Your task to perform on an android device: check storage Image 0: 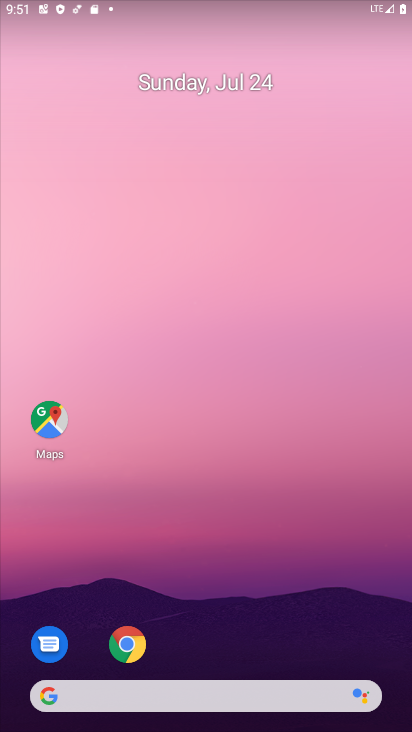
Step 0: drag from (85, 332) to (151, 200)
Your task to perform on an android device: check storage Image 1: 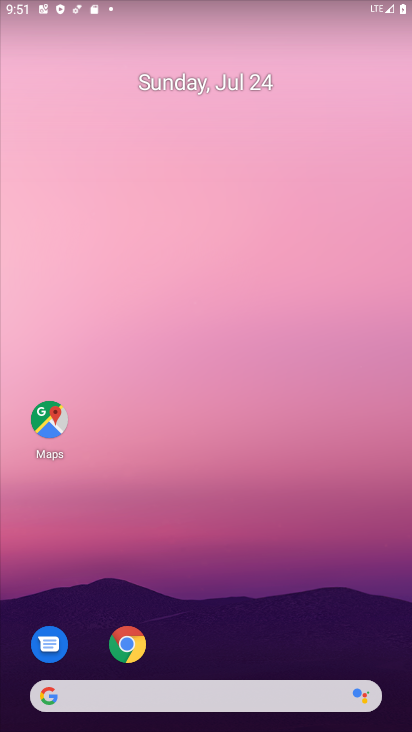
Step 1: drag from (145, 165) to (162, 129)
Your task to perform on an android device: check storage Image 2: 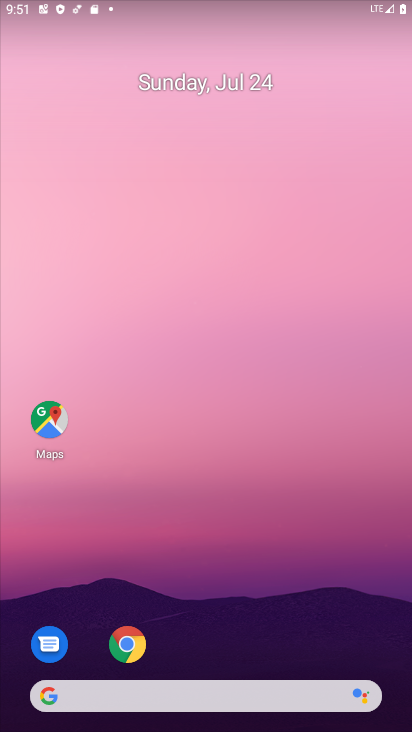
Step 2: drag from (164, 315) to (290, 45)
Your task to perform on an android device: check storage Image 3: 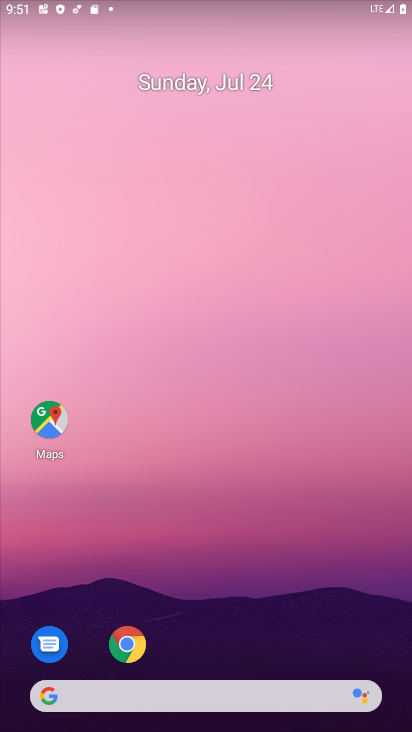
Step 3: drag from (22, 557) to (249, 25)
Your task to perform on an android device: check storage Image 4: 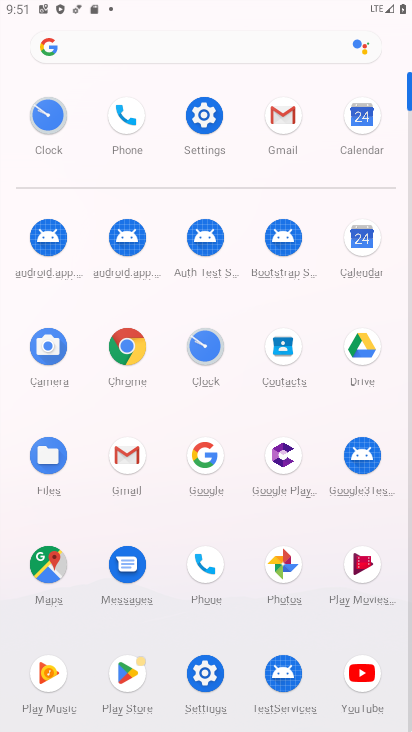
Step 4: click (202, 122)
Your task to perform on an android device: check storage Image 5: 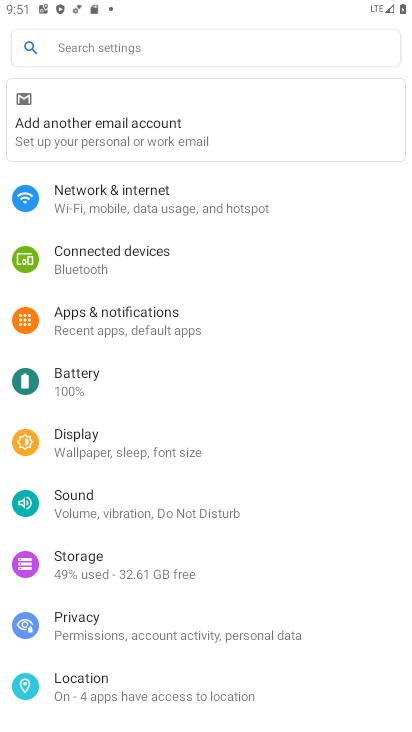
Step 5: click (98, 558)
Your task to perform on an android device: check storage Image 6: 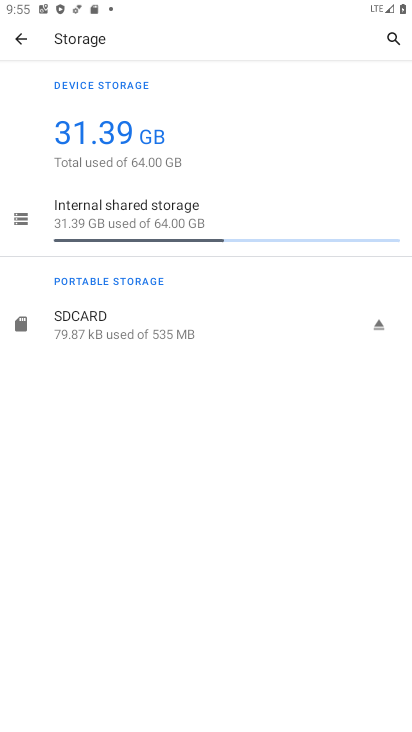
Step 6: task complete